Your task to perform on an android device: Is it going to rain tomorrow? Image 0: 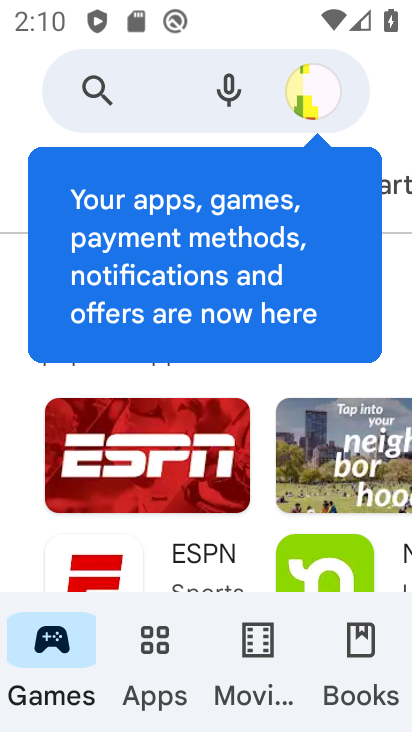
Step 0: press home button
Your task to perform on an android device: Is it going to rain tomorrow? Image 1: 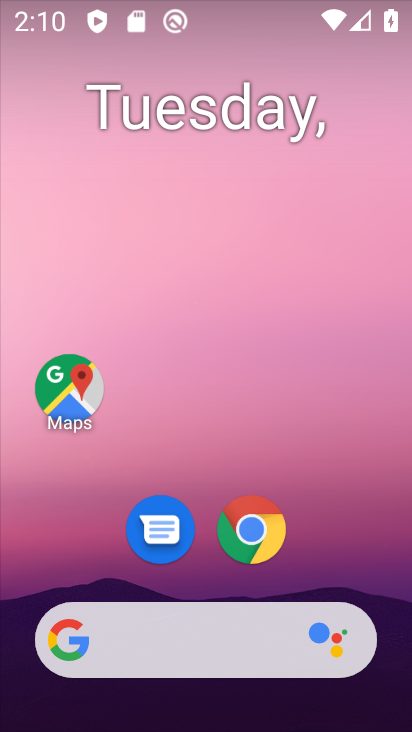
Step 1: click (209, 640)
Your task to perform on an android device: Is it going to rain tomorrow? Image 2: 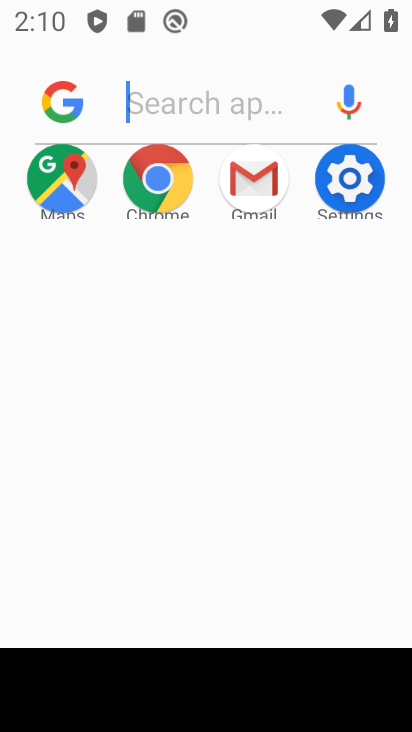
Step 2: type "is it going to rain tomorrow"
Your task to perform on an android device: Is it going to rain tomorrow? Image 3: 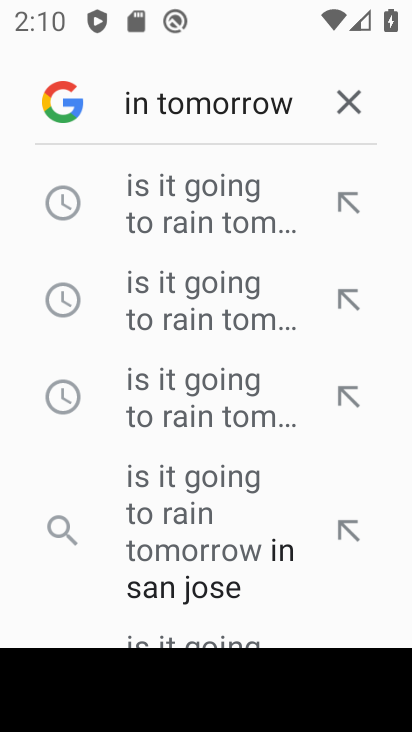
Step 3: click (235, 206)
Your task to perform on an android device: Is it going to rain tomorrow? Image 4: 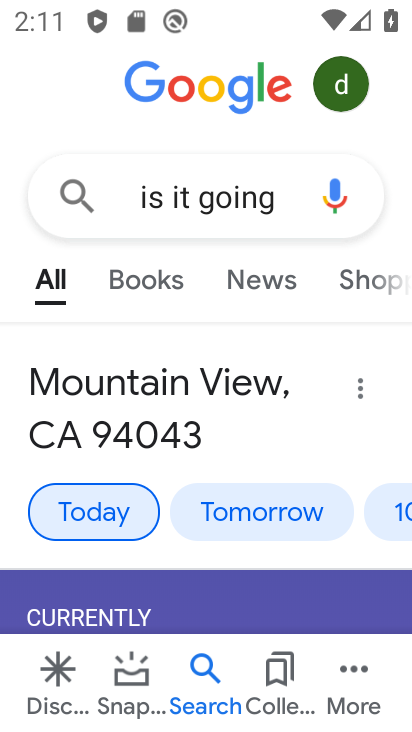
Step 4: drag from (141, 561) to (176, 164)
Your task to perform on an android device: Is it going to rain tomorrow? Image 5: 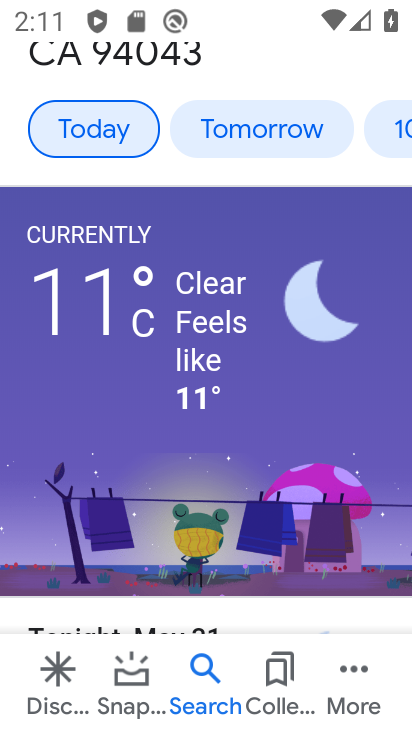
Step 5: click (259, 139)
Your task to perform on an android device: Is it going to rain tomorrow? Image 6: 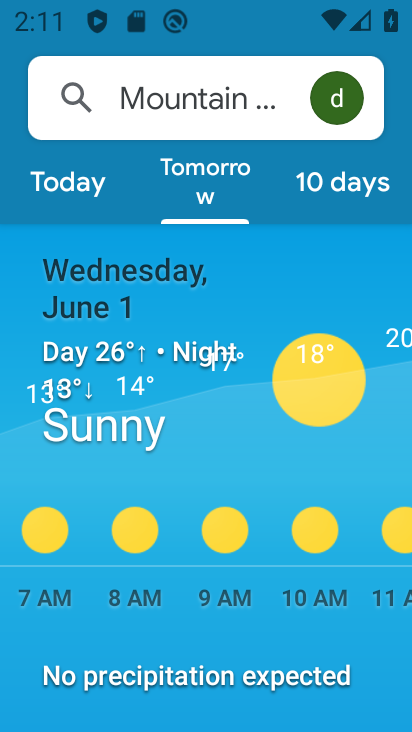
Step 6: task complete